Your task to perform on an android device: Show me popular videos on Youtube Image 0: 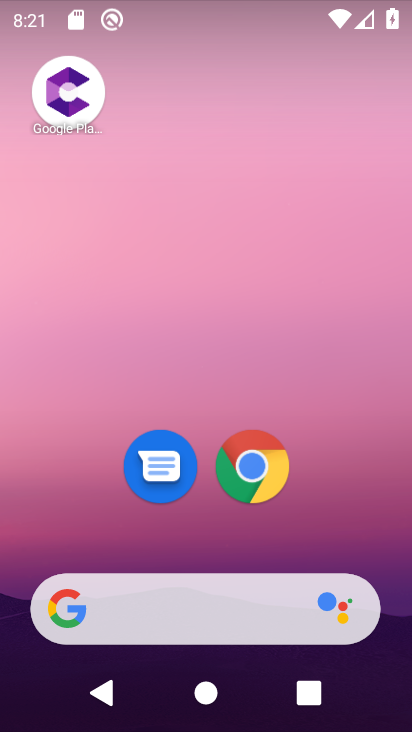
Step 0: press home button
Your task to perform on an android device: Show me popular videos on Youtube Image 1: 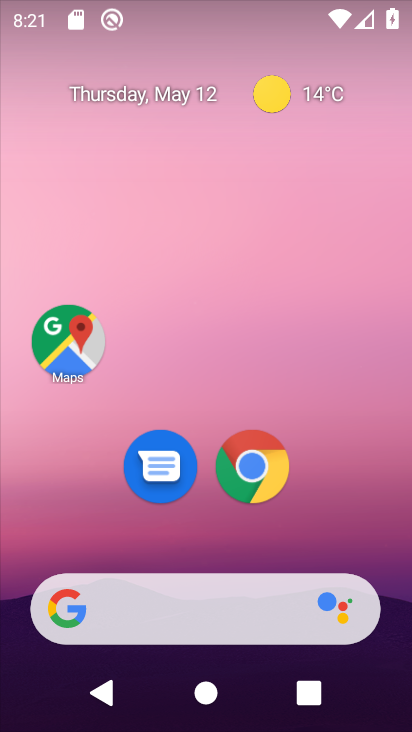
Step 1: drag from (206, 538) to (223, 86)
Your task to perform on an android device: Show me popular videos on Youtube Image 2: 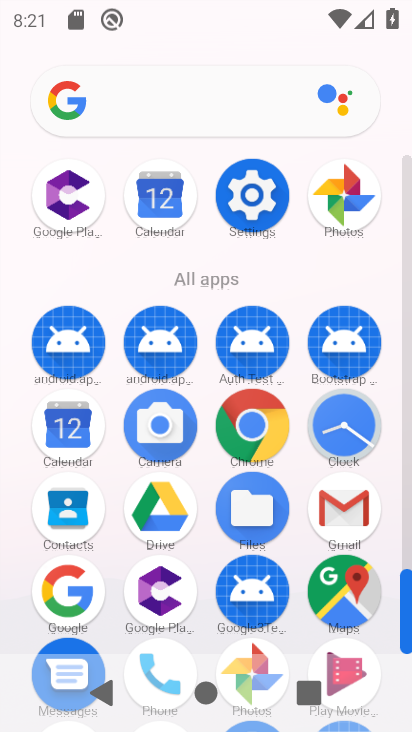
Step 2: drag from (203, 624) to (227, 100)
Your task to perform on an android device: Show me popular videos on Youtube Image 3: 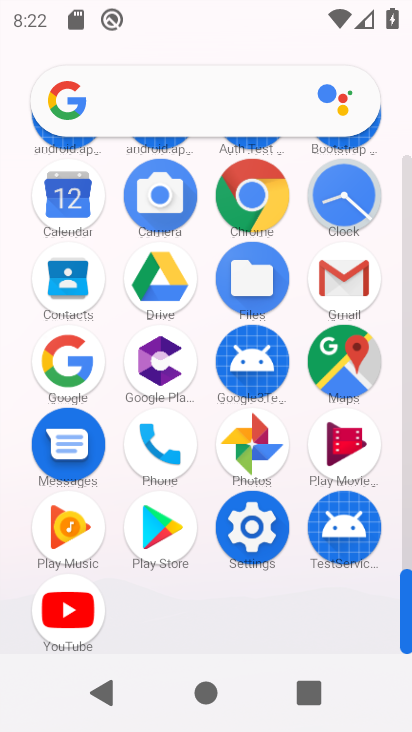
Step 3: click (64, 602)
Your task to perform on an android device: Show me popular videos on Youtube Image 4: 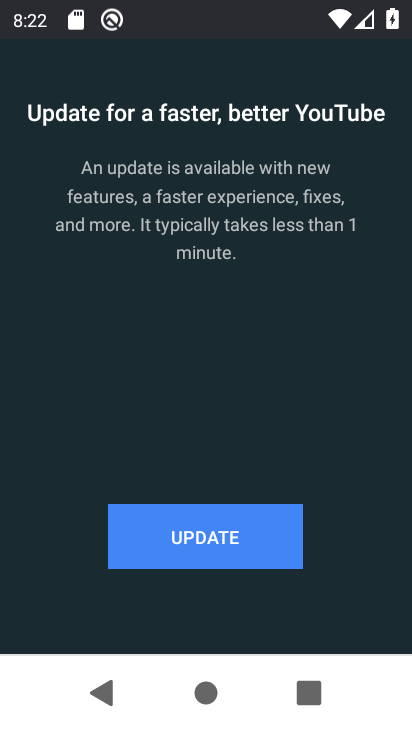
Step 4: click (205, 531)
Your task to perform on an android device: Show me popular videos on Youtube Image 5: 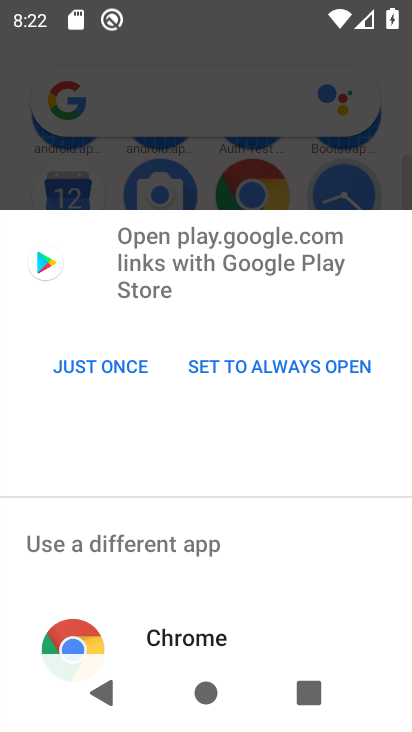
Step 5: click (93, 364)
Your task to perform on an android device: Show me popular videos on Youtube Image 6: 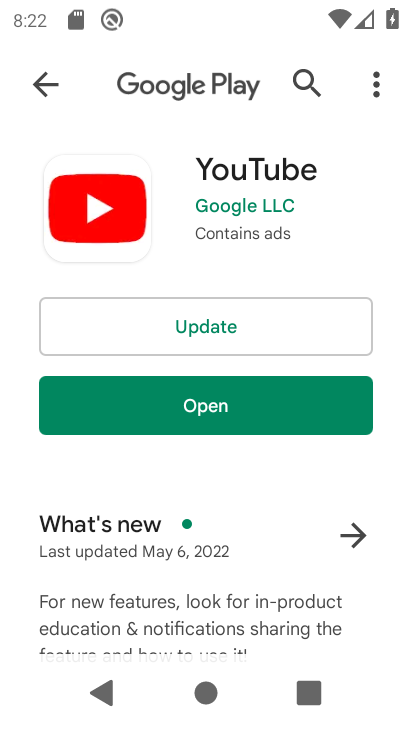
Step 6: click (205, 332)
Your task to perform on an android device: Show me popular videos on Youtube Image 7: 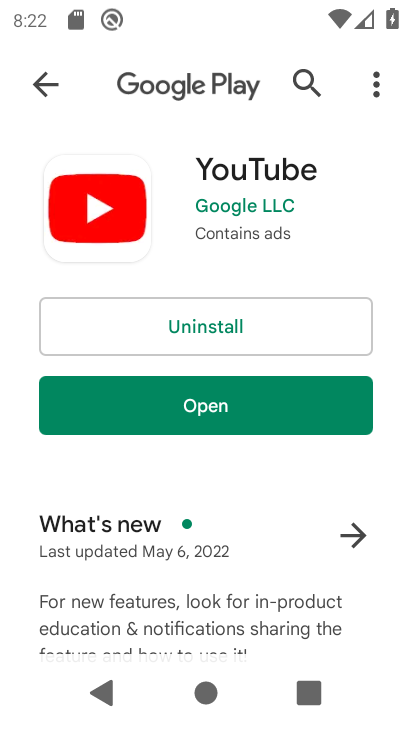
Step 7: click (207, 412)
Your task to perform on an android device: Show me popular videos on Youtube Image 8: 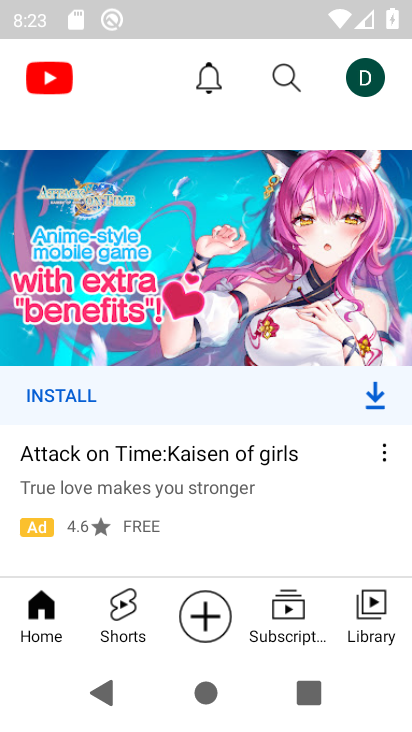
Step 8: drag from (192, 523) to (219, 88)
Your task to perform on an android device: Show me popular videos on Youtube Image 9: 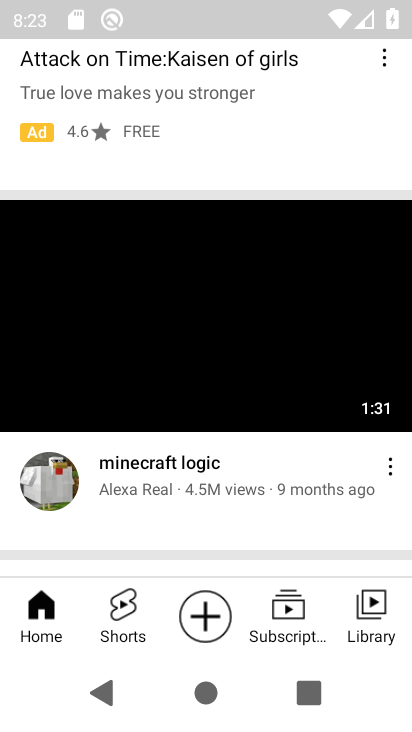
Step 9: drag from (213, 485) to (219, 107)
Your task to perform on an android device: Show me popular videos on Youtube Image 10: 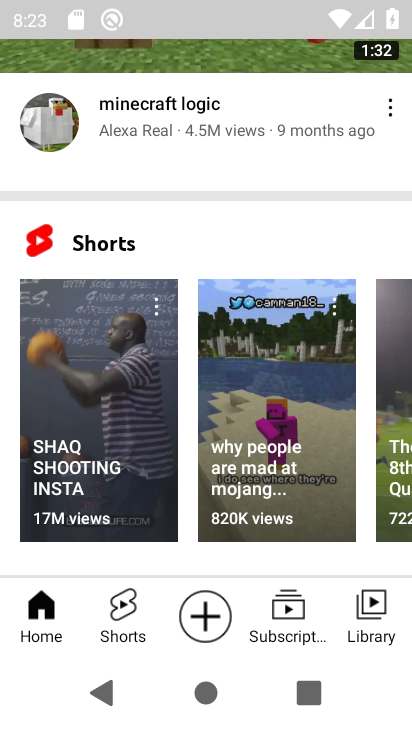
Step 10: drag from (172, 151) to (160, 629)
Your task to perform on an android device: Show me popular videos on Youtube Image 11: 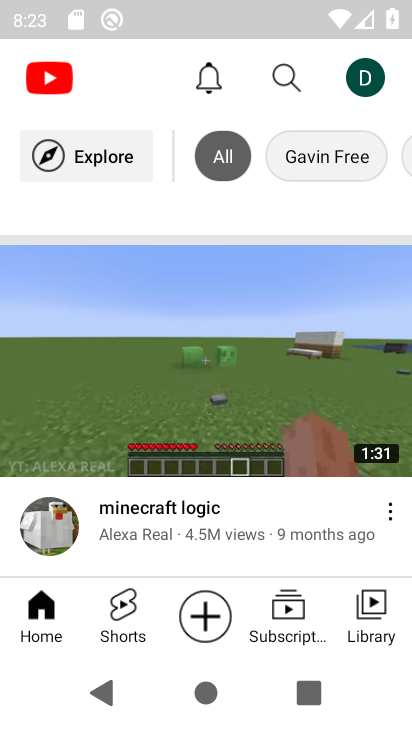
Step 11: click (92, 147)
Your task to perform on an android device: Show me popular videos on Youtube Image 12: 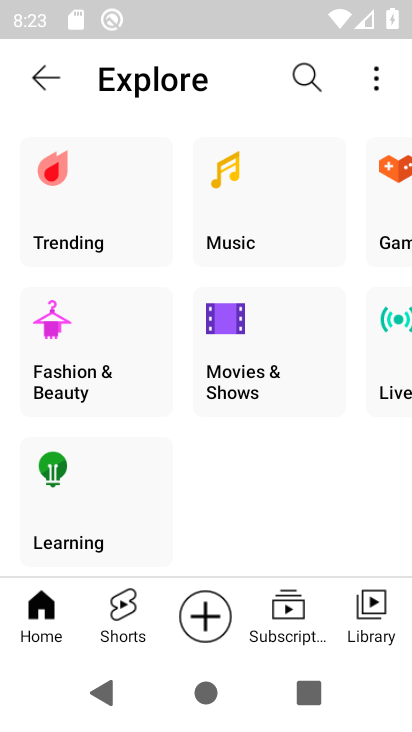
Step 12: click (93, 209)
Your task to perform on an android device: Show me popular videos on Youtube Image 13: 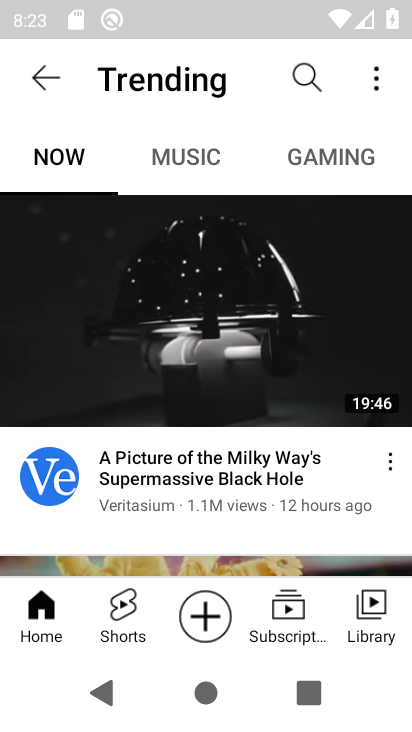
Step 13: task complete